Your task to perform on an android device: Go to internet settings Image 0: 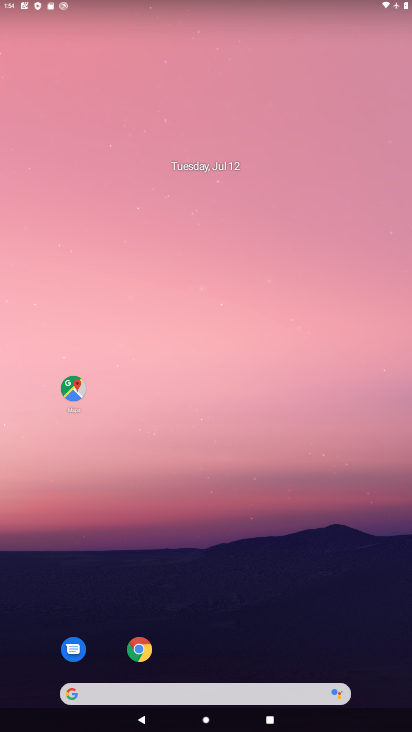
Step 0: drag from (323, 619) to (181, 133)
Your task to perform on an android device: Go to internet settings Image 1: 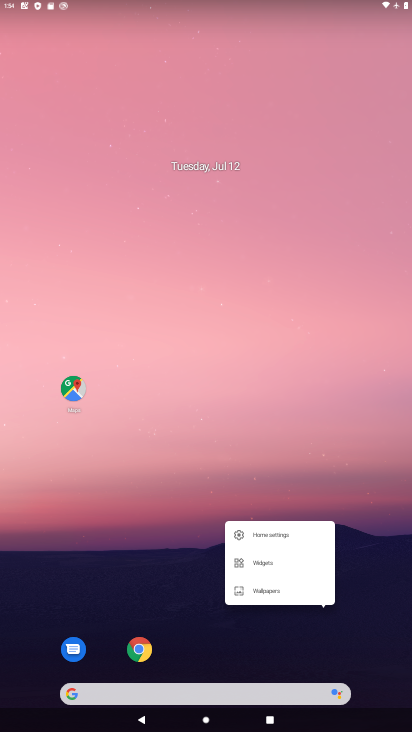
Step 1: click (193, 435)
Your task to perform on an android device: Go to internet settings Image 2: 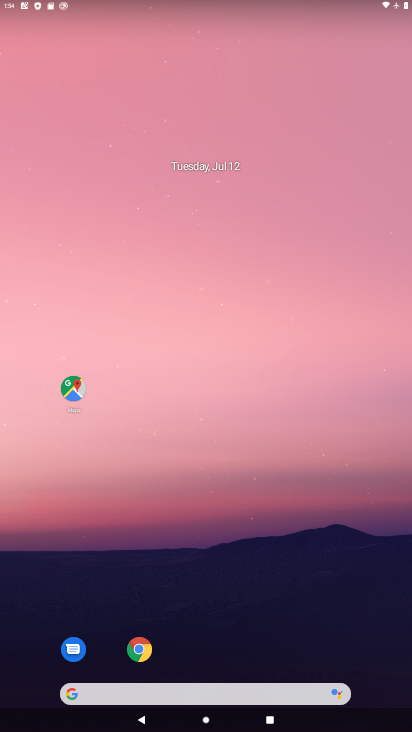
Step 2: drag from (226, 609) to (200, 151)
Your task to perform on an android device: Go to internet settings Image 3: 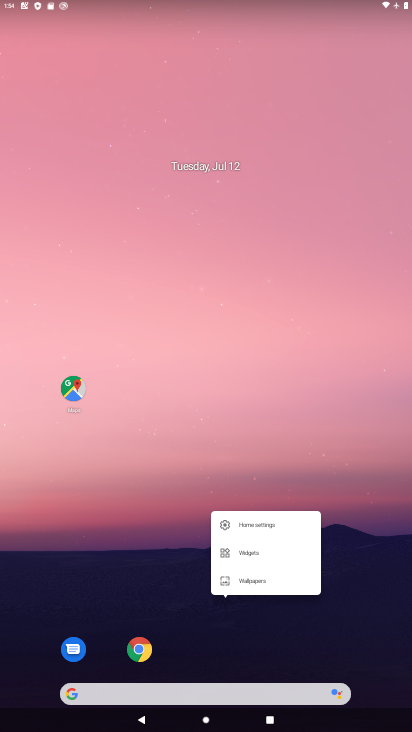
Step 3: click (200, 335)
Your task to perform on an android device: Go to internet settings Image 4: 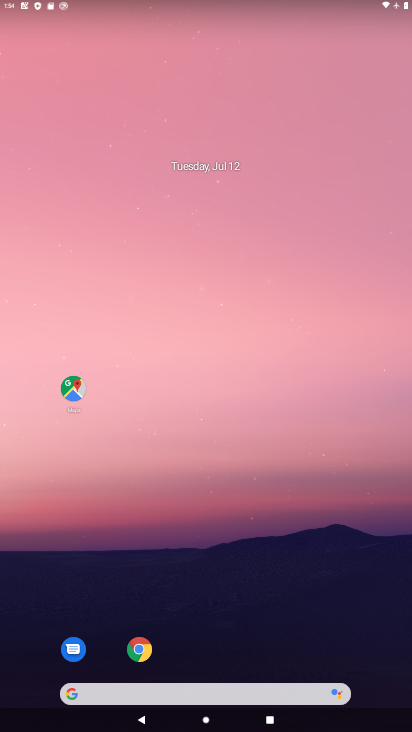
Step 4: drag from (234, 627) to (221, 5)
Your task to perform on an android device: Go to internet settings Image 5: 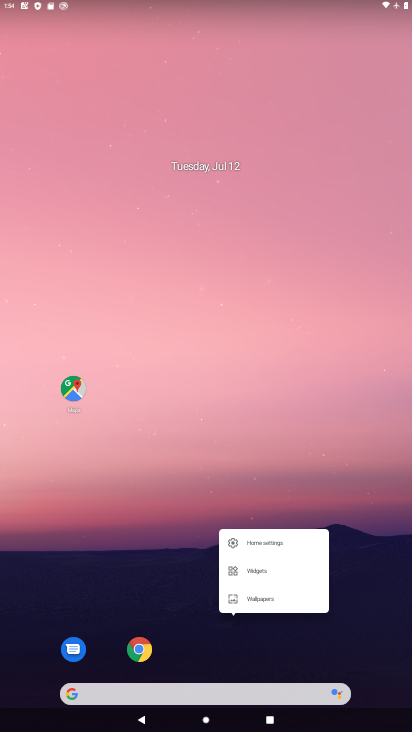
Step 5: click (236, 253)
Your task to perform on an android device: Go to internet settings Image 6: 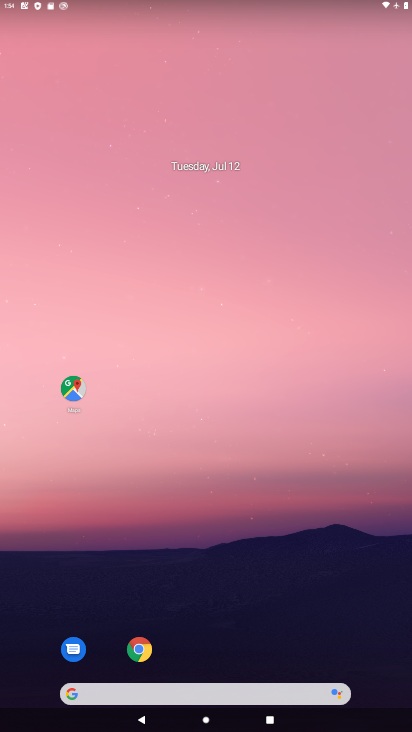
Step 6: drag from (248, 636) to (209, 113)
Your task to perform on an android device: Go to internet settings Image 7: 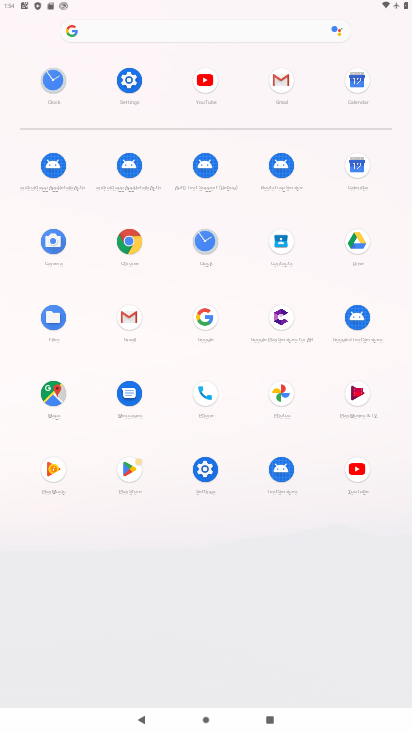
Step 7: click (113, 88)
Your task to perform on an android device: Go to internet settings Image 8: 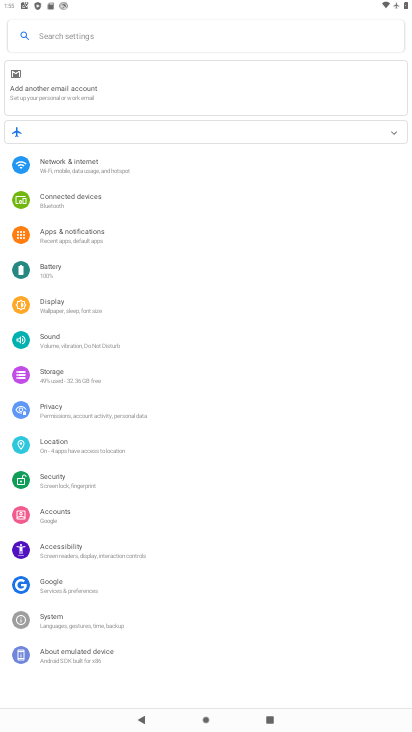
Step 8: click (96, 161)
Your task to perform on an android device: Go to internet settings Image 9: 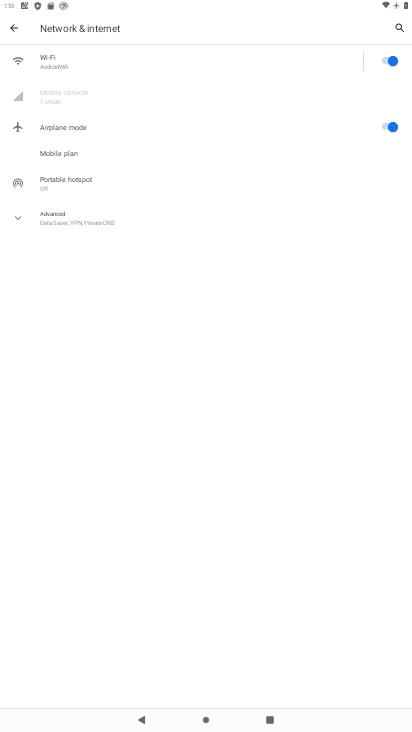
Step 9: task complete